Your task to perform on an android device: Open notification settings Image 0: 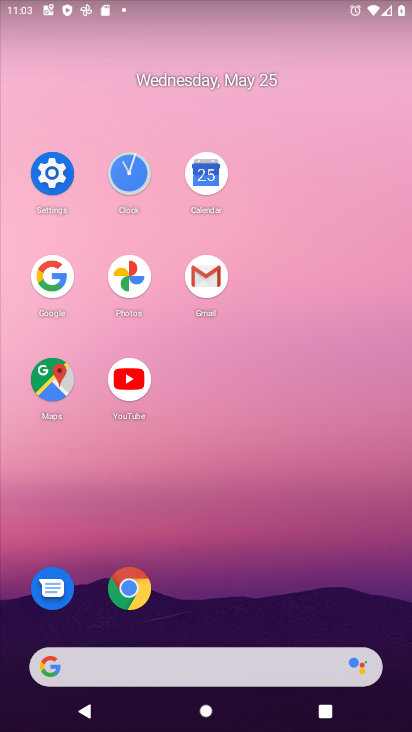
Step 0: click (50, 169)
Your task to perform on an android device: Open notification settings Image 1: 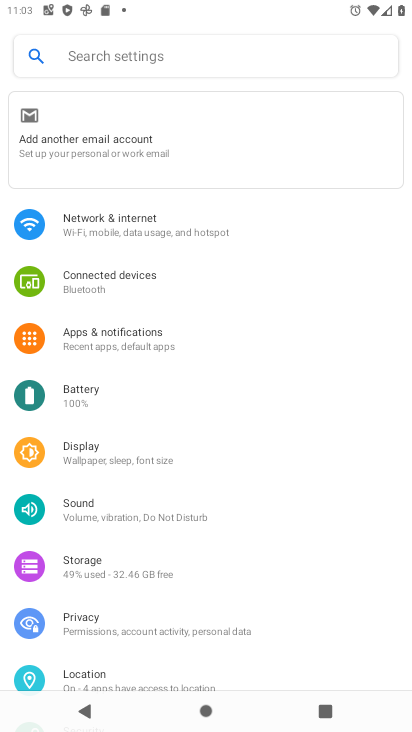
Step 1: click (145, 349)
Your task to perform on an android device: Open notification settings Image 2: 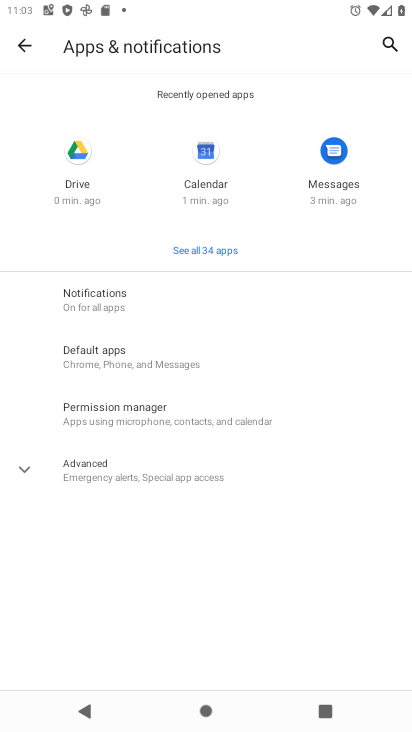
Step 2: task complete